Your task to perform on an android device: Open Chrome and go to settings Image 0: 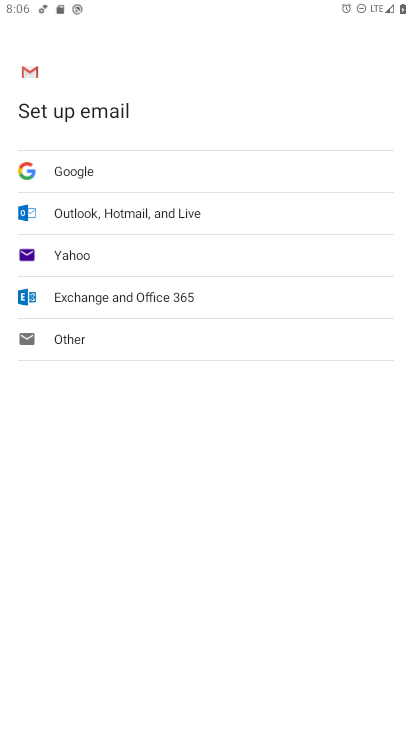
Step 0: press home button
Your task to perform on an android device: Open Chrome and go to settings Image 1: 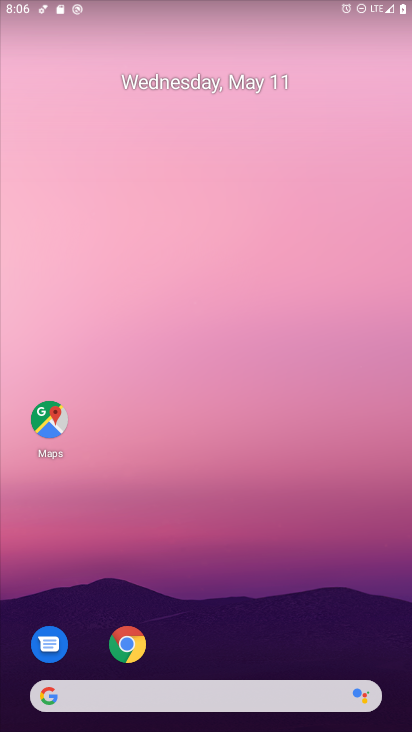
Step 1: click (129, 644)
Your task to perform on an android device: Open Chrome and go to settings Image 2: 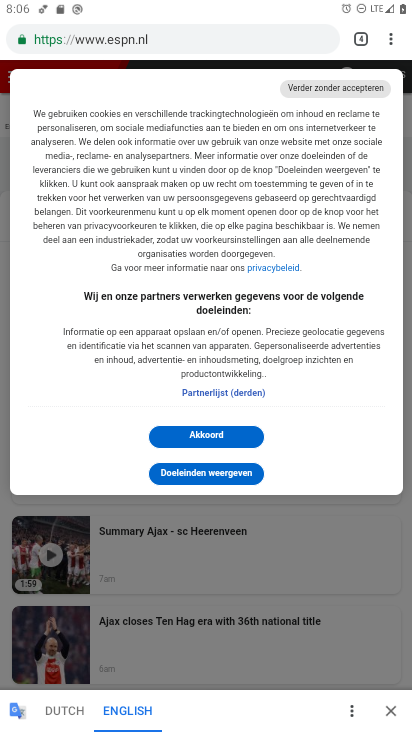
Step 2: click (389, 35)
Your task to perform on an android device: Open Chrome and go to settings Image 3: 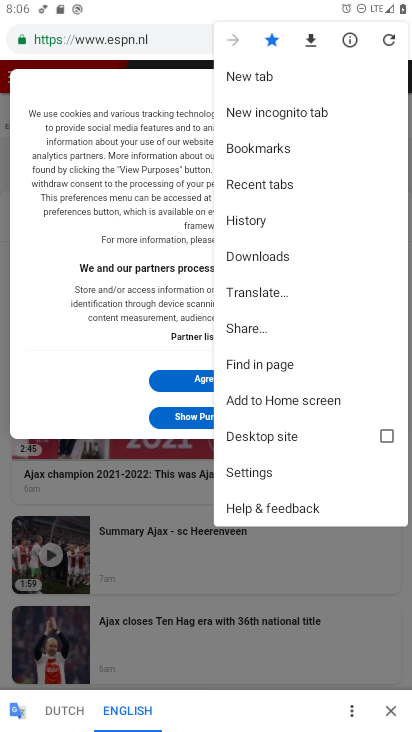
Step 3: click (388, 41)
Your task to perform on an android device: Open Chrome and go to settings Image 4: 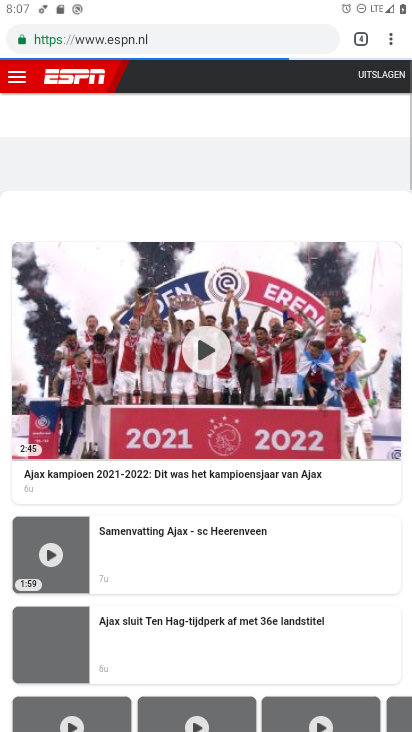
Step 4: click (392, 42)
Your task to perform on an android device: Open Chrome and go to settings Image 5: 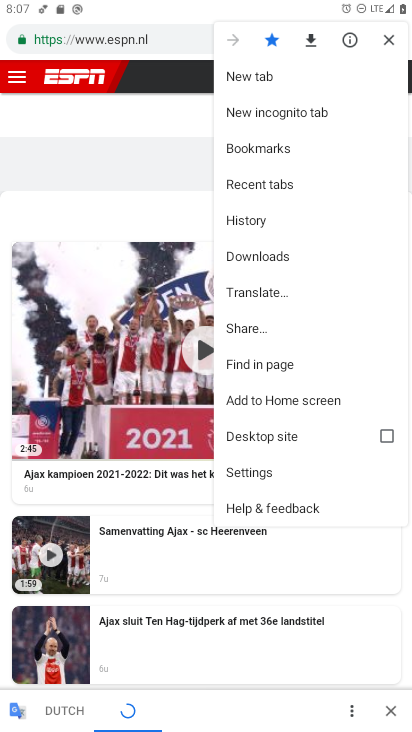
Step 5: click (258, 471)
Your task to perform on an android device: Open Chrome and go to settings Image 6: 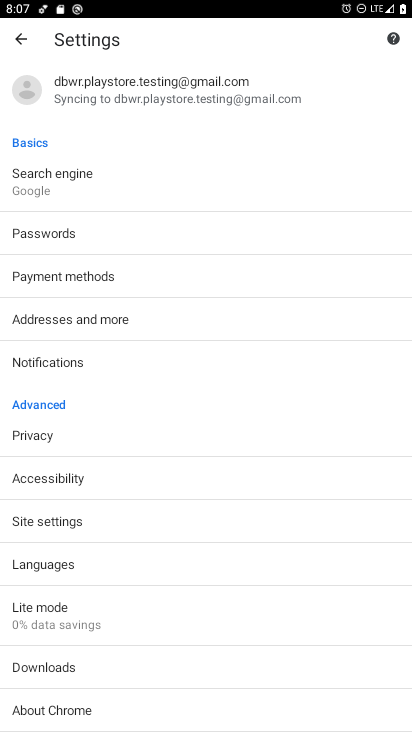
Step 6: task complete